Your task to perform on an android device: turn on data saver in the chrome app Image 0: 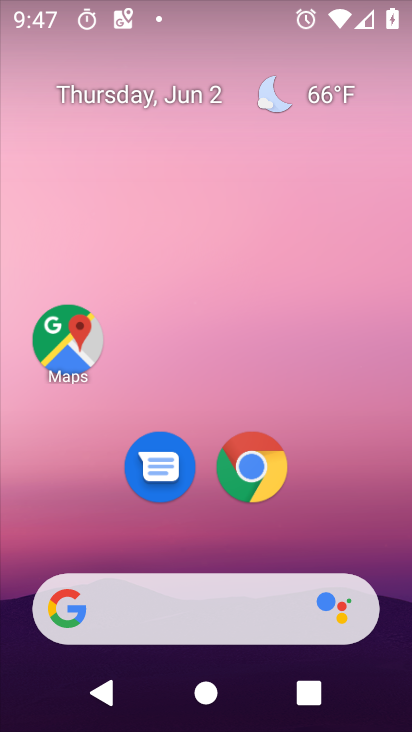
Step 0: click (245, 463)
Your task to perform on an android device: turn on data saver in the chrome app Image 1: 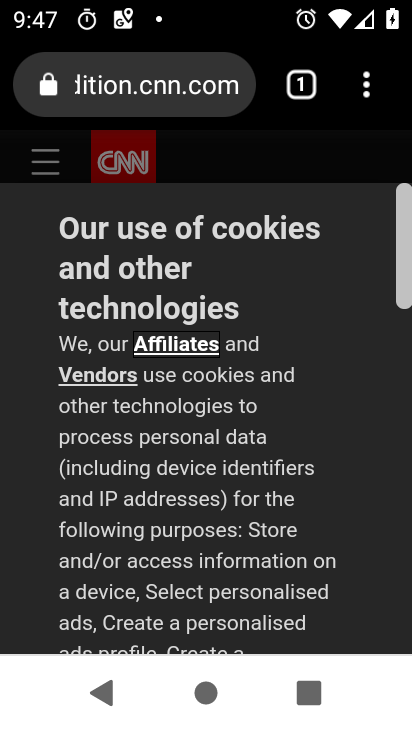
Step 1: click (365, 93)
Your task to perform on an android device: turn on data saver in the chrome app Image 2: 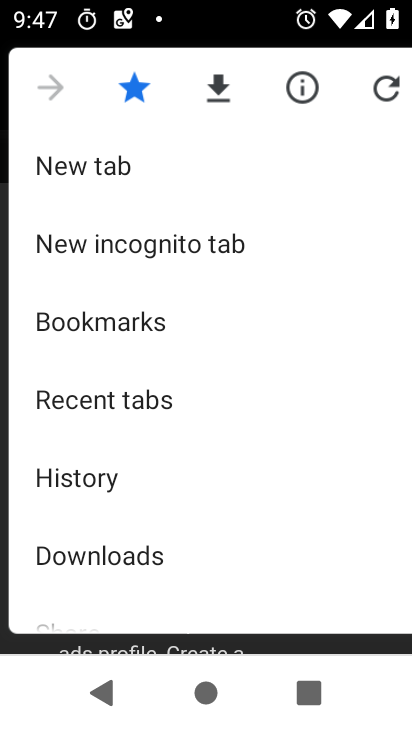
Step 2: drag from (134, 523) to (307, 158)
Your task to perform on an android device: turn on data saver in the chrome app Image 3: 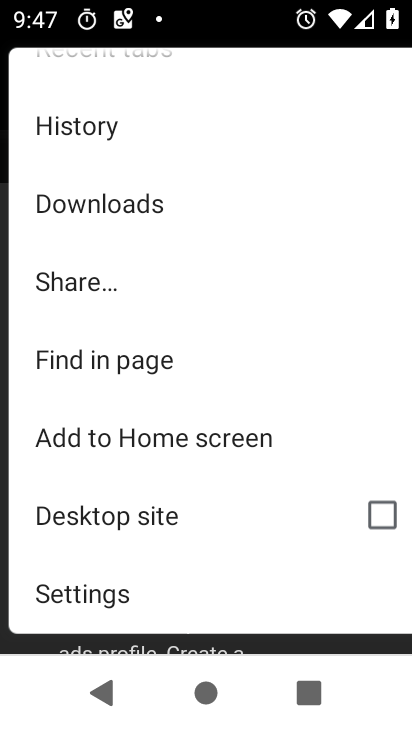
Step 3: click (79, 583)
Your task to perform on an android device: turn on data saver in the chrome app Image 4: 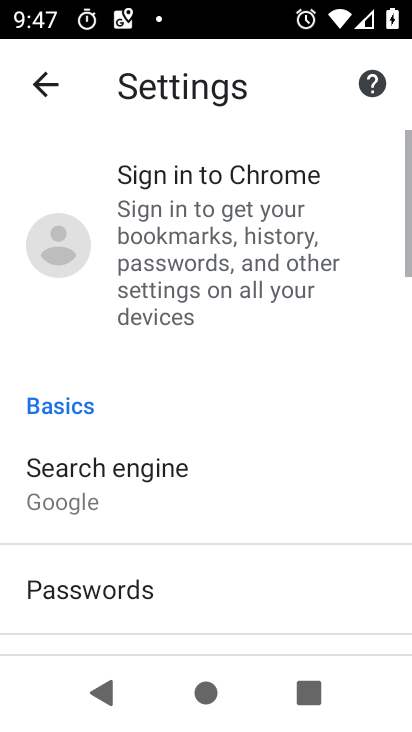
Step 4: drag from (16, 493) to (246, 102)
Your task to perform on an android device: turn on data saver in the chrome app Image 5: 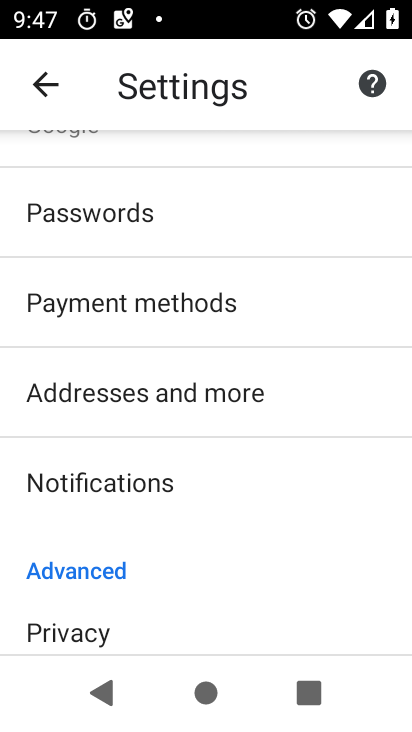
Step 5: drag from (60, 465) to (260, 143)
Your task to perform on an android device: turn on data saver in the chrome app Image 6: 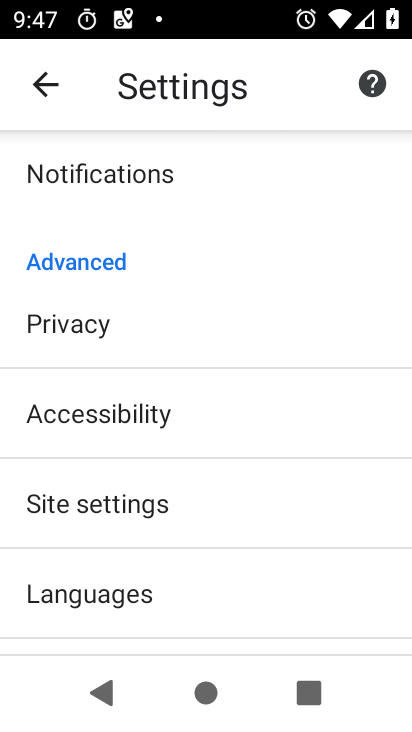
Step 6: drag from (54, 538) to (243, 215)
Your task to perform on an android device: turn on data saver in the chrome app Image 7: 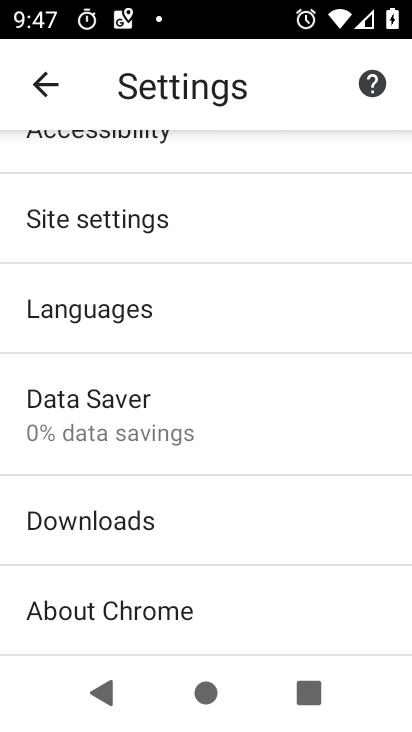
Step 7: click (143, 418)
Your task to perform on an android device: turn on data saver in the chrome app Image 8: 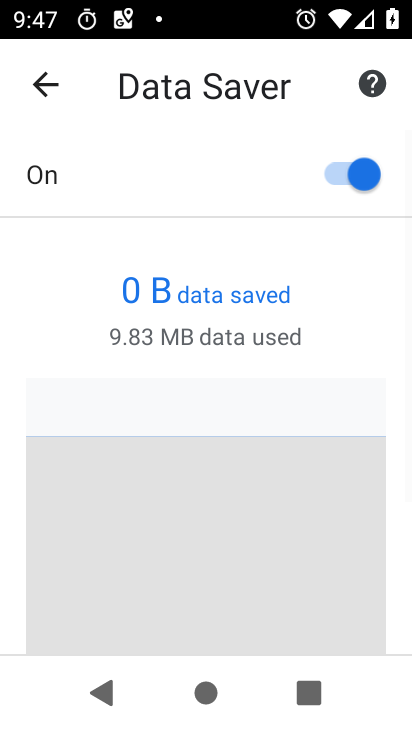
Step 8: task complete